Your task to perform on an android device: Go to battery settings Image 0: 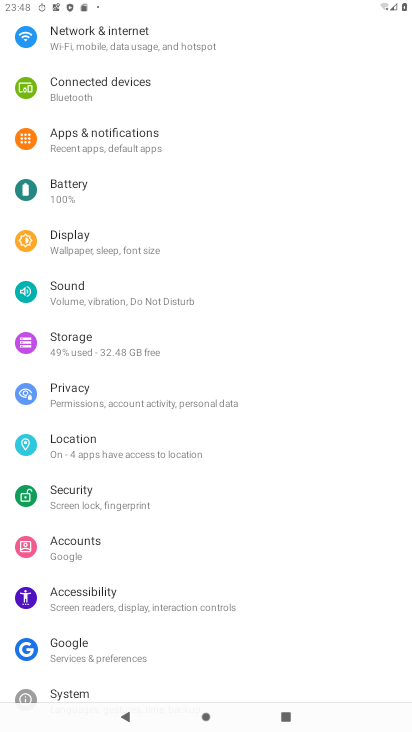
Step 0: click (168, 179)
Your task to perform on an android device: Go to battery settings Image 1: 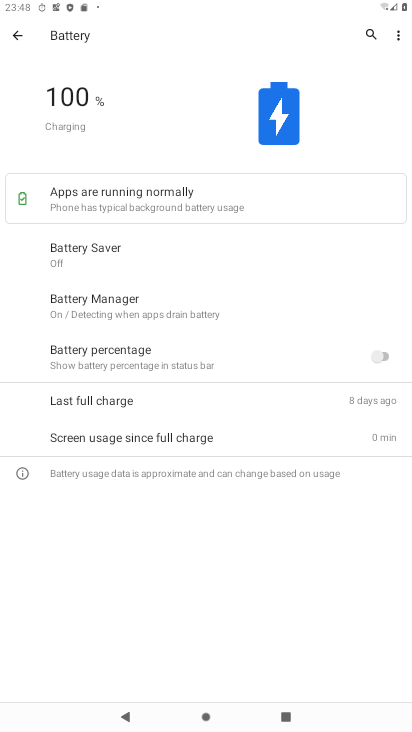
Step 1: task complete